Your task to perform on an android device: star an email in the gmail app Image 0: 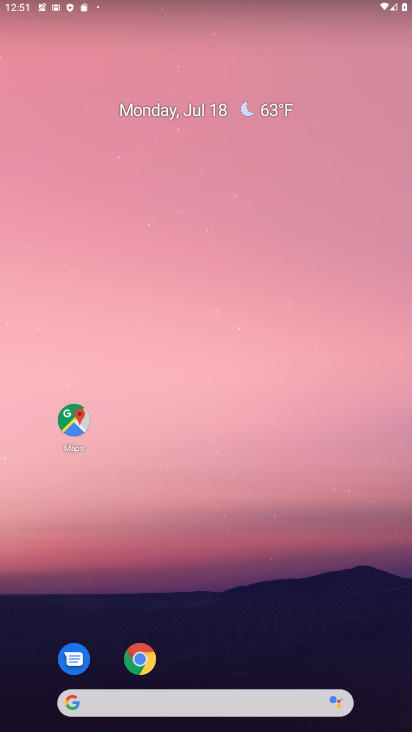
Step 0: drag from (163, 687) to (217, 366)
Your task to perform on an android device: star an email in the gmail app Image 1: 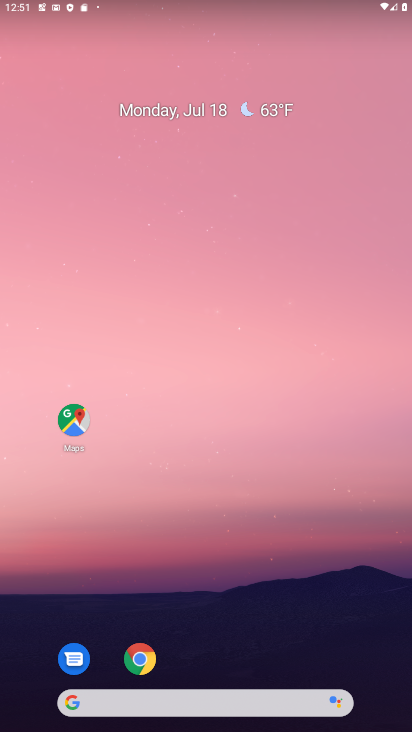
Step 1: drag from (233, 689) to (236, 134)
Your task to perform on an android device: star an email in the gmail app Image 2: 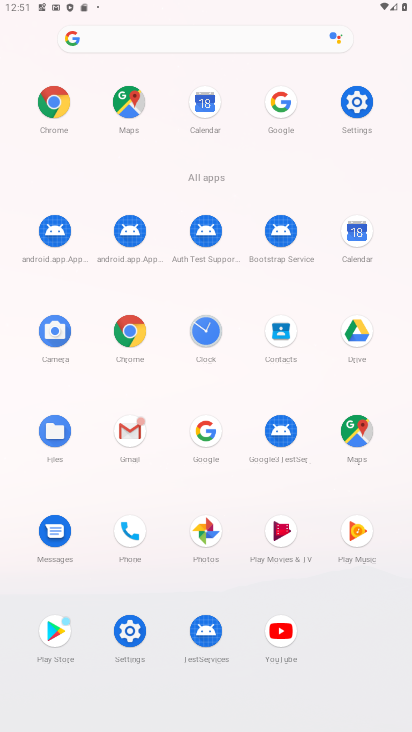
Step 2: click (130, 433)
Your task to perform on an android device: star an email in the gmail app Image 3: 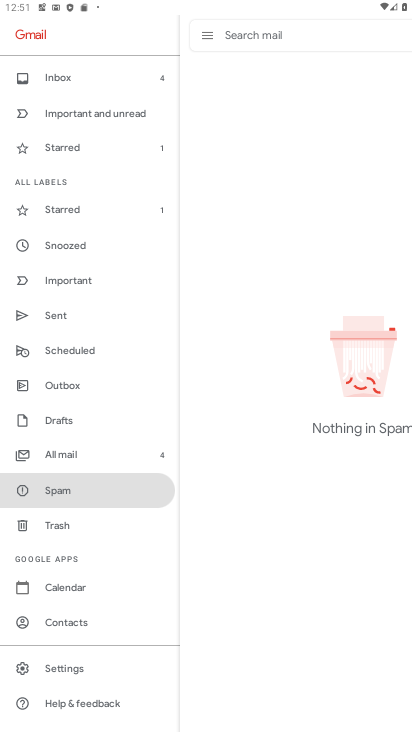
Step 3: click (90, 76)
Your task to perform on an android device: star an email in the gmail app Image 4: 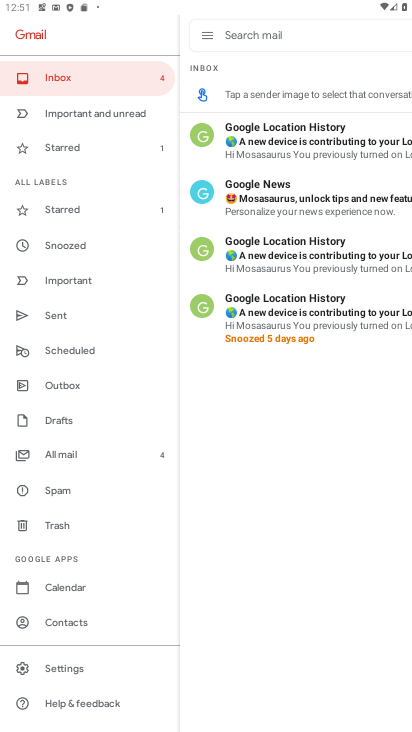
Step 4: click (331, 136)
Your task to perform on an android device: star an email in the gmail app Image 5: 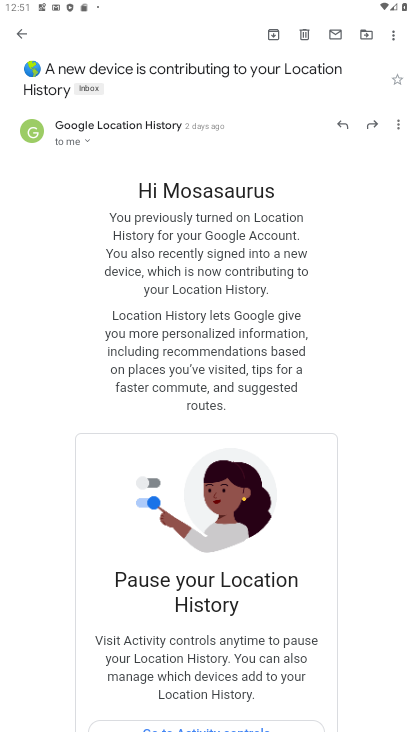
Step 5: click (396, 80)
Your task to perform on an android device: star an email in the gmail app Image 6: 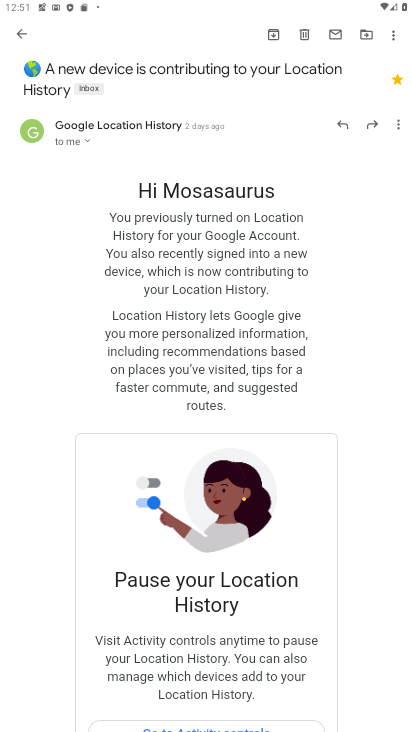
Step 6: task complete